Your task to perform on an android device: change the clock display to digital Image 0: 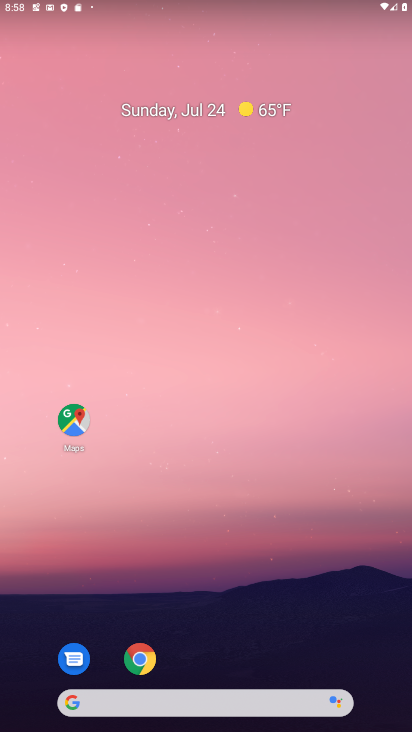
Step 0: drag from (280, 671) to (296, 6)
Your task to perform on an android device: change the clock display to digital Image 1: 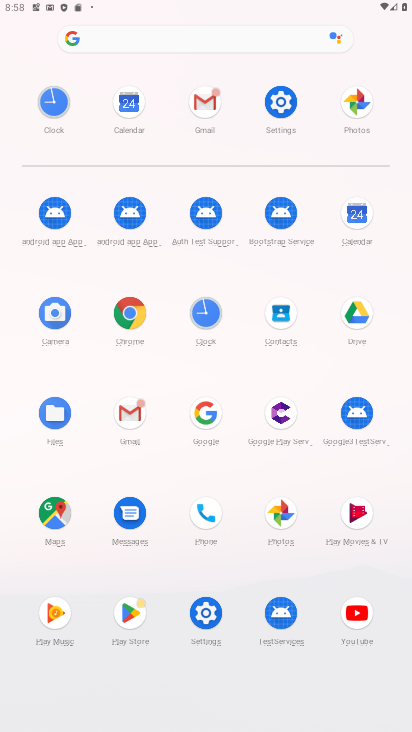
Step 1: click (196, 317)
Your task to perform on an android device: change the clock display to digital Image 2: 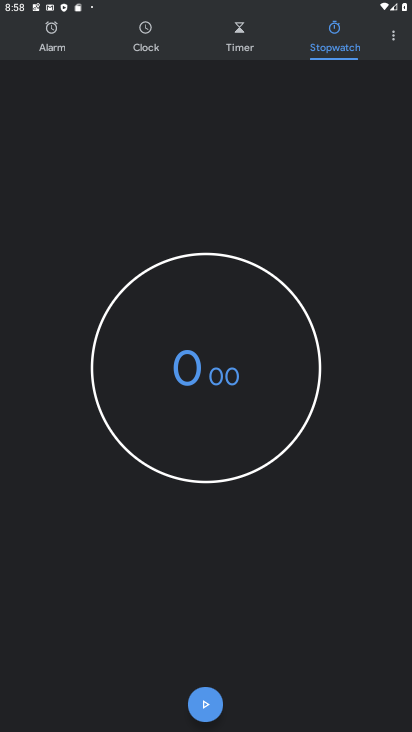
Step 2: click (395, 45)
Your task to perform on an android device: change the clock display to digital Image 3: 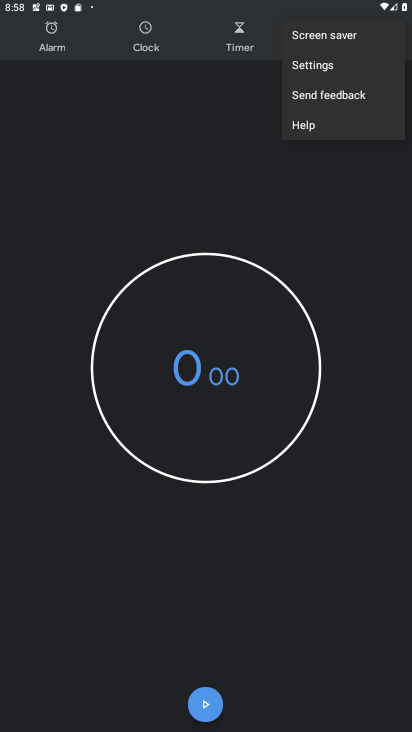
Step 3: click (330, 76)
Your task to perform on an android device: change the clock display to digital Image 4: 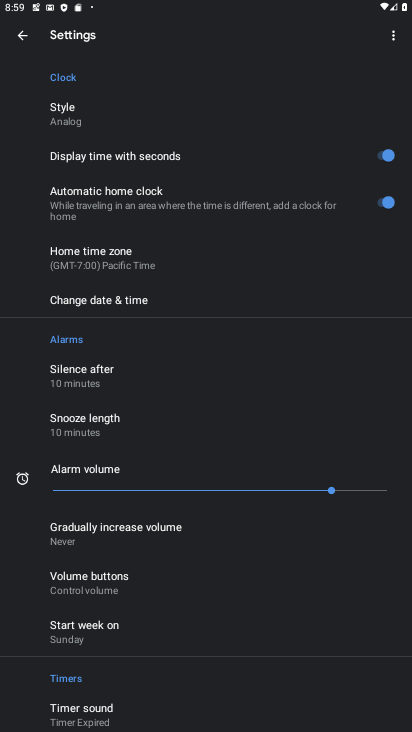
Step 4: click (69, 124)
Your task to perform on an android device: change the clock display to digital Image 5: 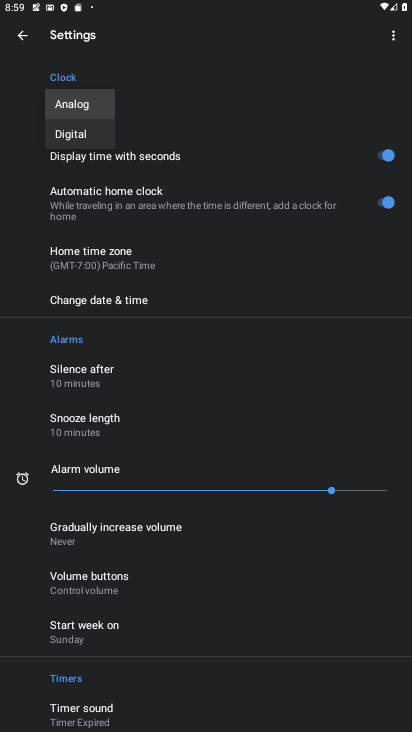
Step 5: click (70, 134)
Your task to perform on an android device: change the clock display to digital Image 6: 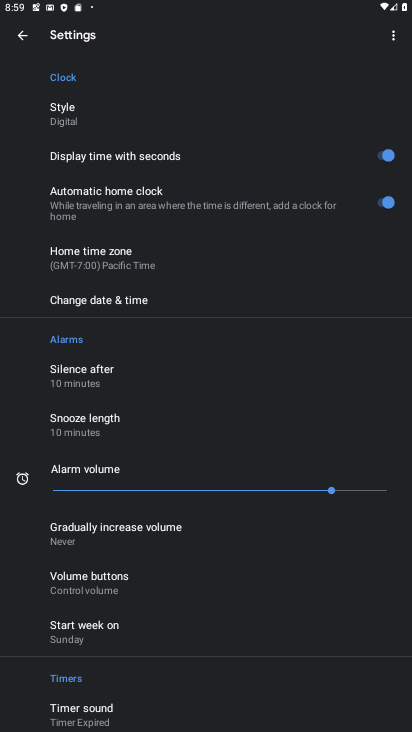
Step 6: task complete